Your task to perform on an android device: Go to Wikipedia Image 0: 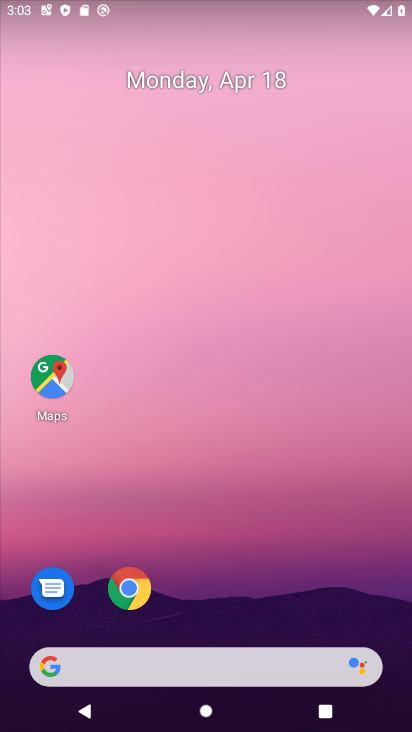
Step 0: click (129, 607)
Your task to perform on an android device: Go to Wikipedia Image 1: 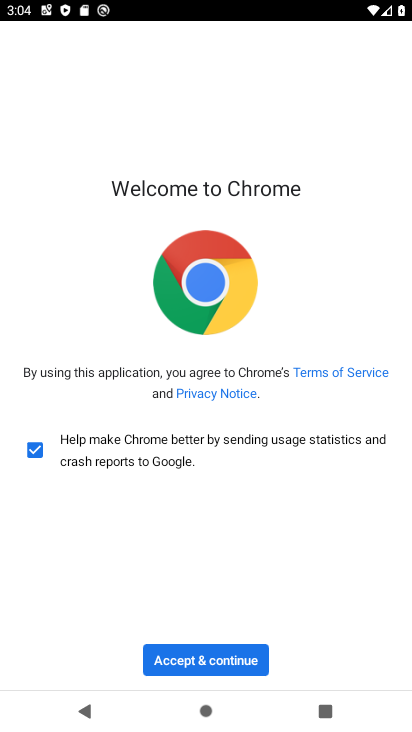
Step 1: click (189, 664)
Your task to perform on an android device: Go to Wikipedia Image 2: 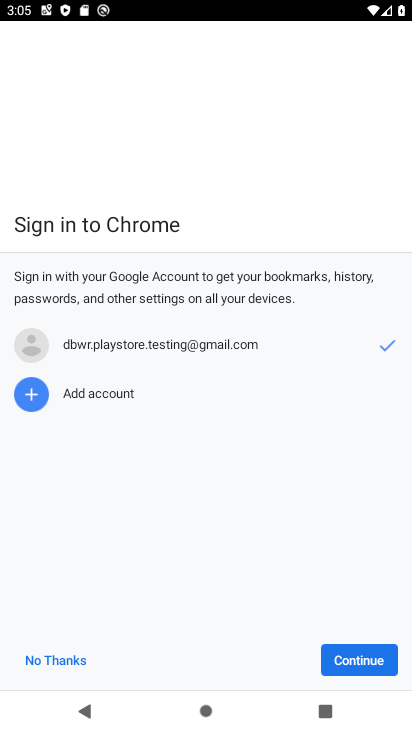
Step 2: click (362, 669)
Your task to perform on an android device: Go to Wikipedia Image 3: 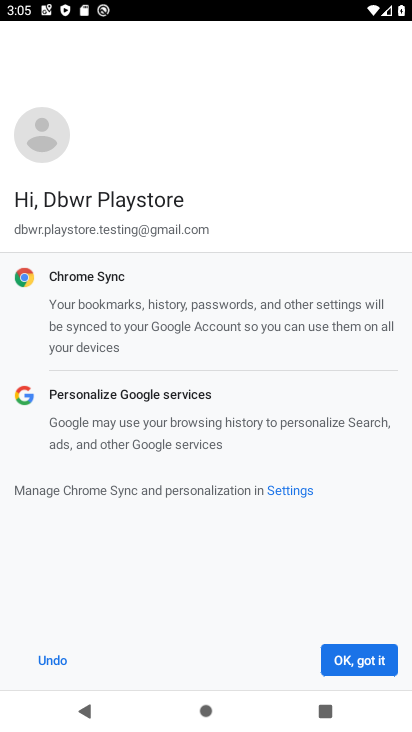
Step 3: click (370, 670)
Your task to perform on an android device: Go to Wikipedia Image 4: 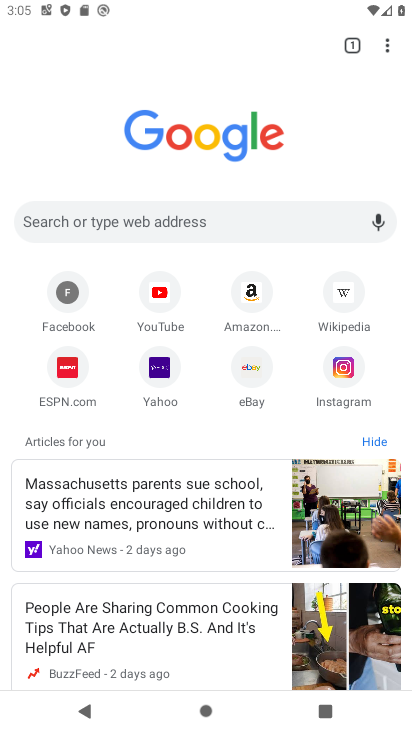
Step 4: click (346, 299)
Your task to perform on an android device: Go to Wikipedia Image 5: 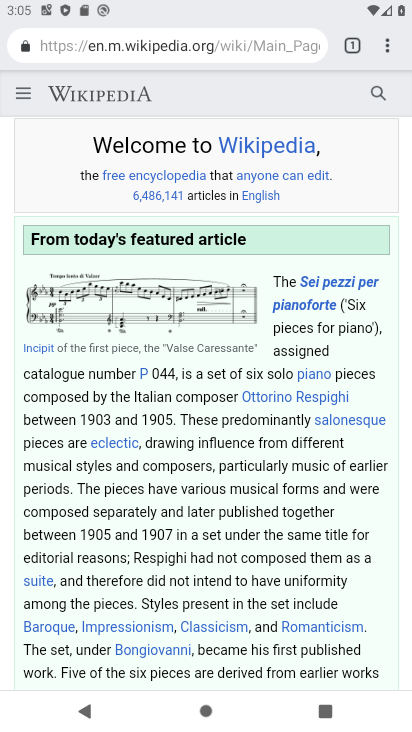
Step 5: task complete